Your task to perform on an android device: turn on notifications settings in the gmail app Image 0: 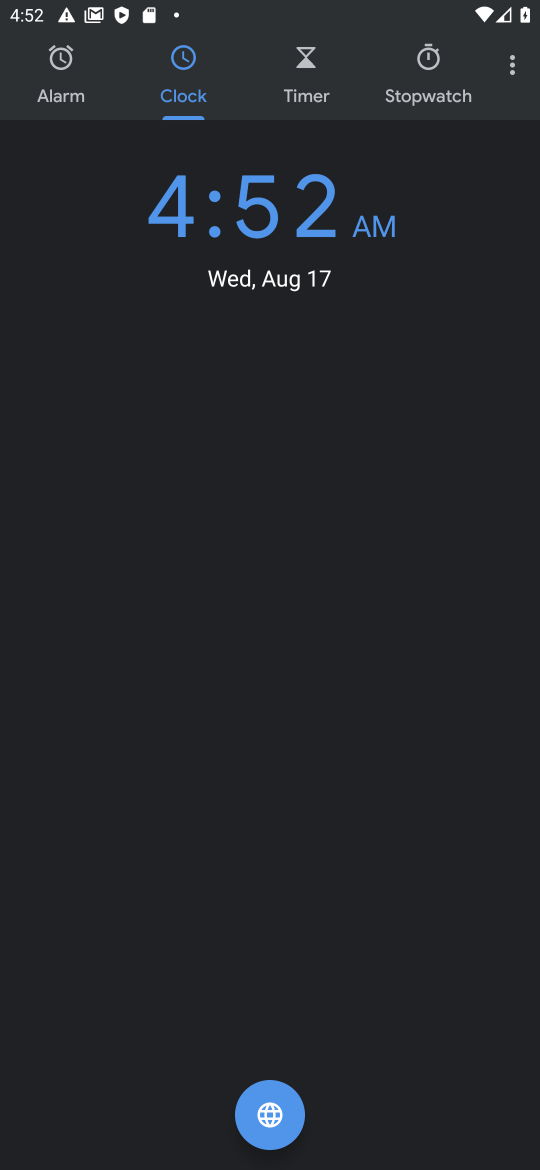
Step 0: press home button
Your task to perform on an android device: turn on notifications settings in the gmail app Image 1: 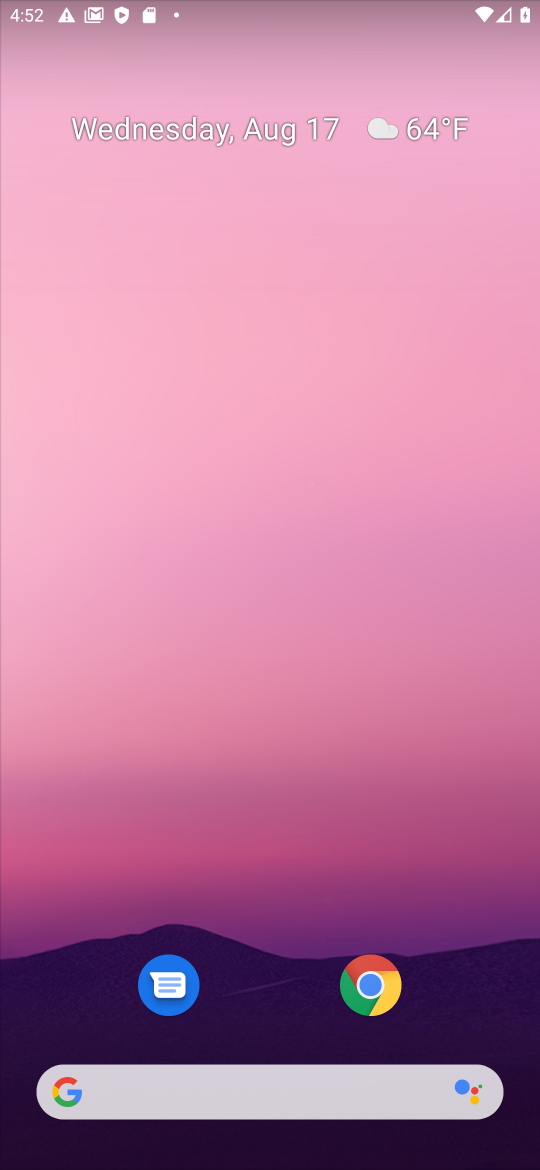
Step 1: drag from (229, 1096) to (281, 163)
Your task to perform on an android device: turn on notifications settings in the gmail app Image 2: 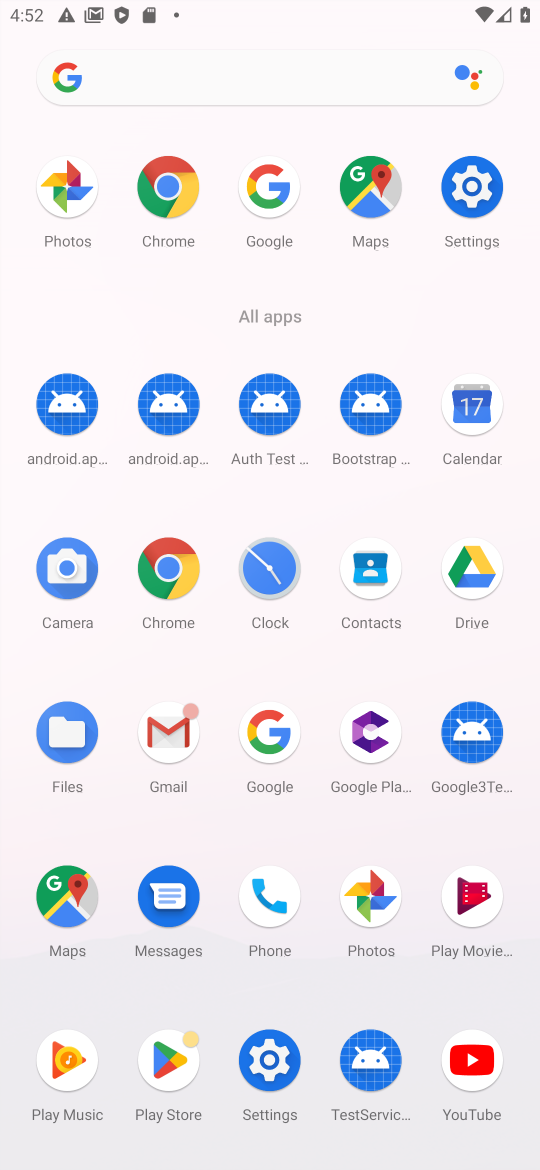
Step 2: click (163, 727)
Your task to perform on an android device: turn on notifications settings in the gmail app Image 3: 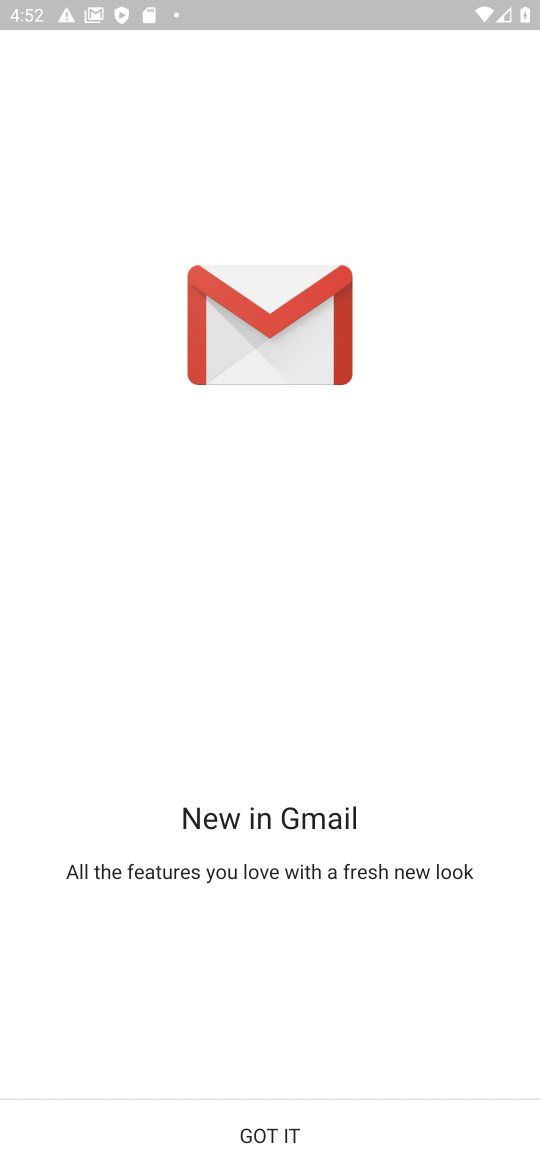
Step 3: click (266, 1126)
Your task to perform on an android device: turn on notifications settings in the gmail app Image 4: 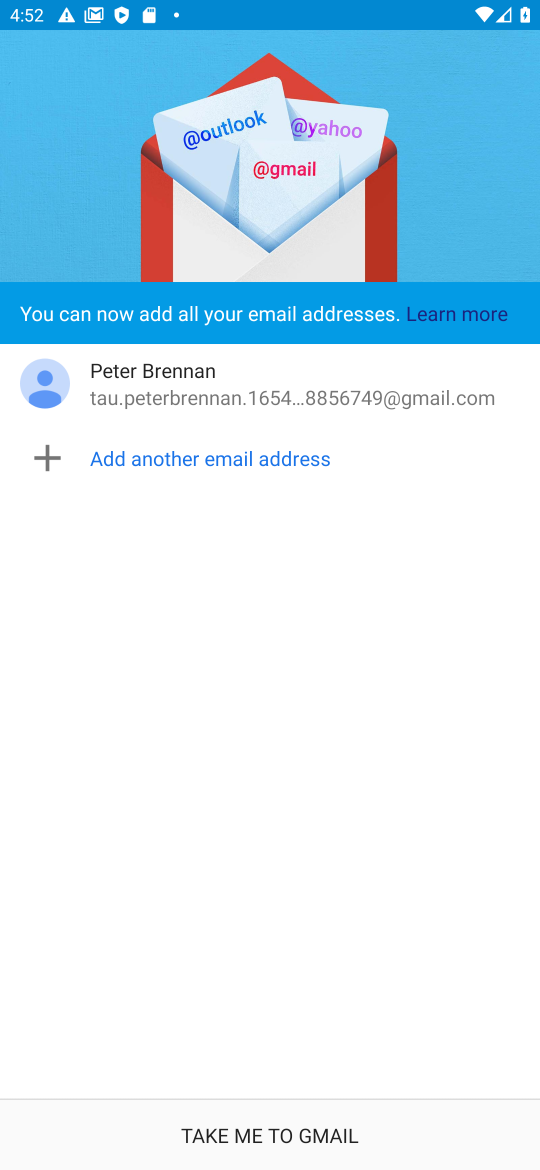
Step 4: click (266, 1126)
Your task to perform on an android device: turn on notifications settings in the gmail app Image 5: 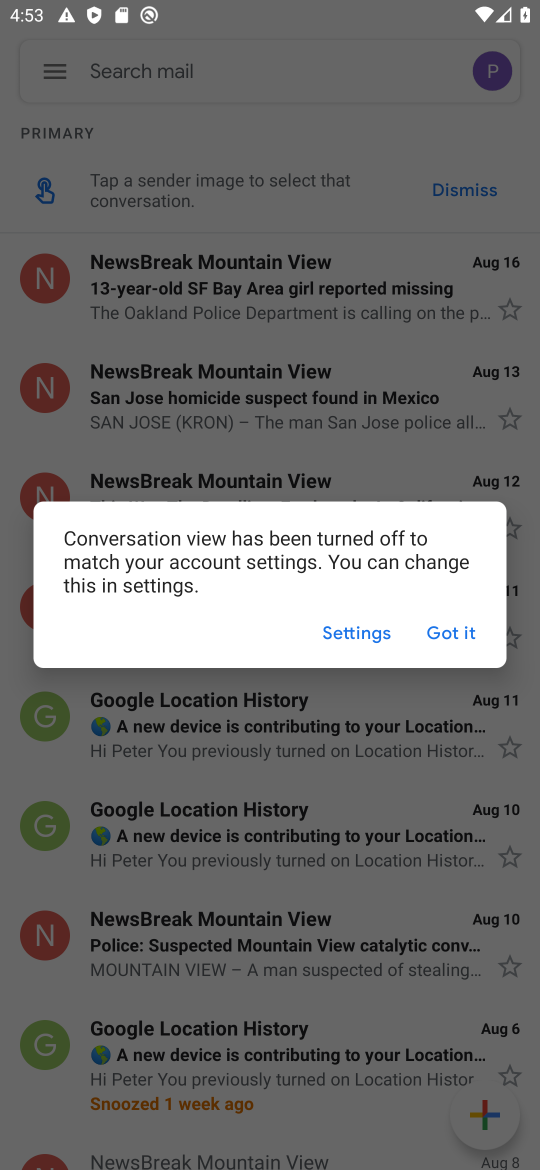
Step 5: click (453, 635)
Your task to perform on an android device: turn on notifications settings in the gmail app Image 6: 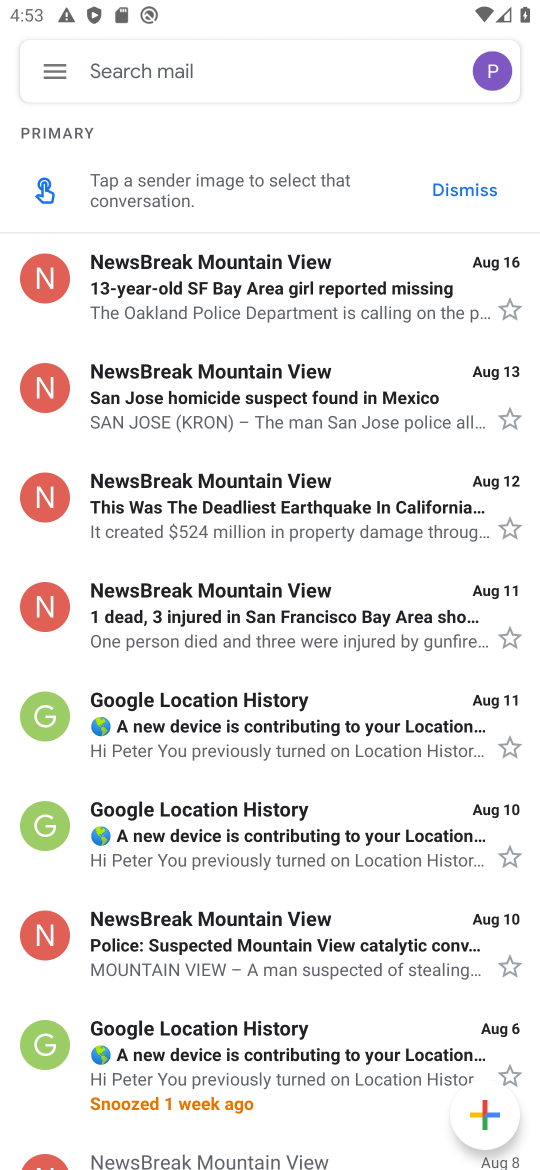
Step 6: click (53, 74)
Your task to perform on an android device: turn on notifications settings in the gmail app Image 7: 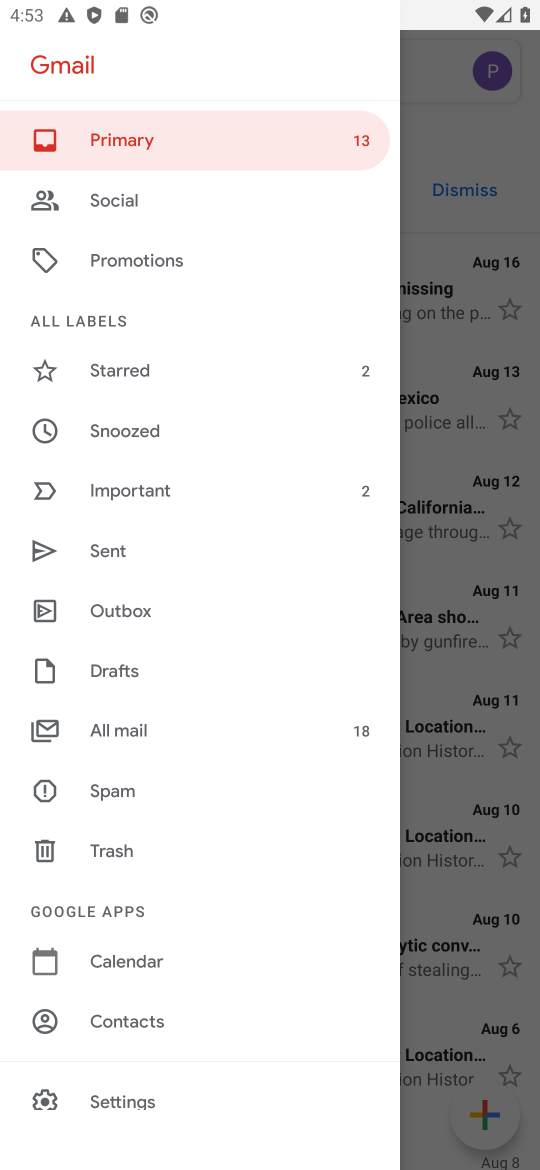
Step 7: click (123, 1091)
Your task to perform on an android device: turn on notifications settings in the gmail app Image 8: 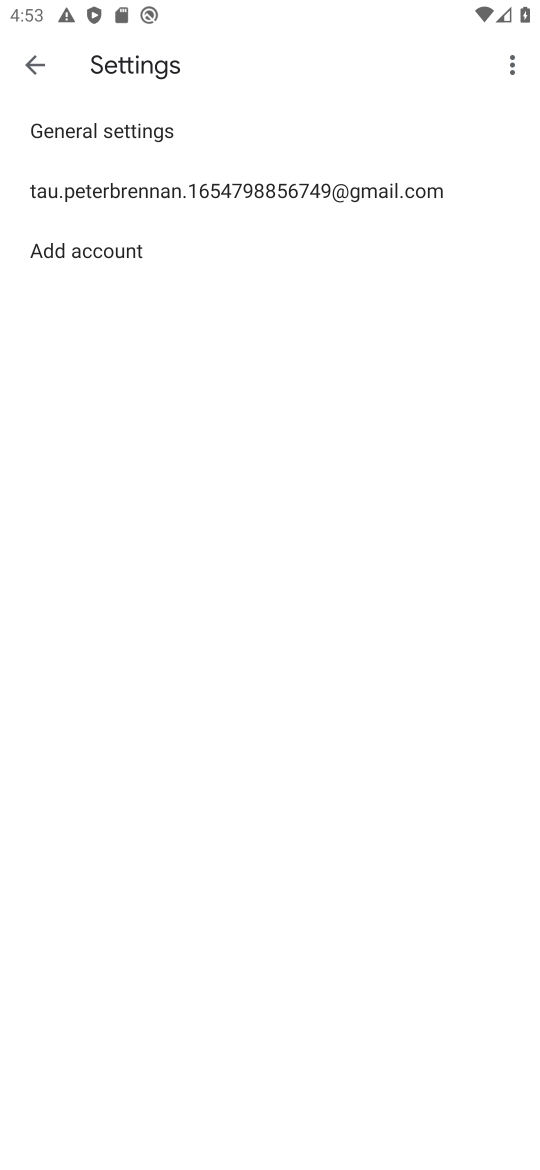
Step 8: click (157, 126)
Your task to perform on an android device: turn on notifications settings in the gmail app Image 9: 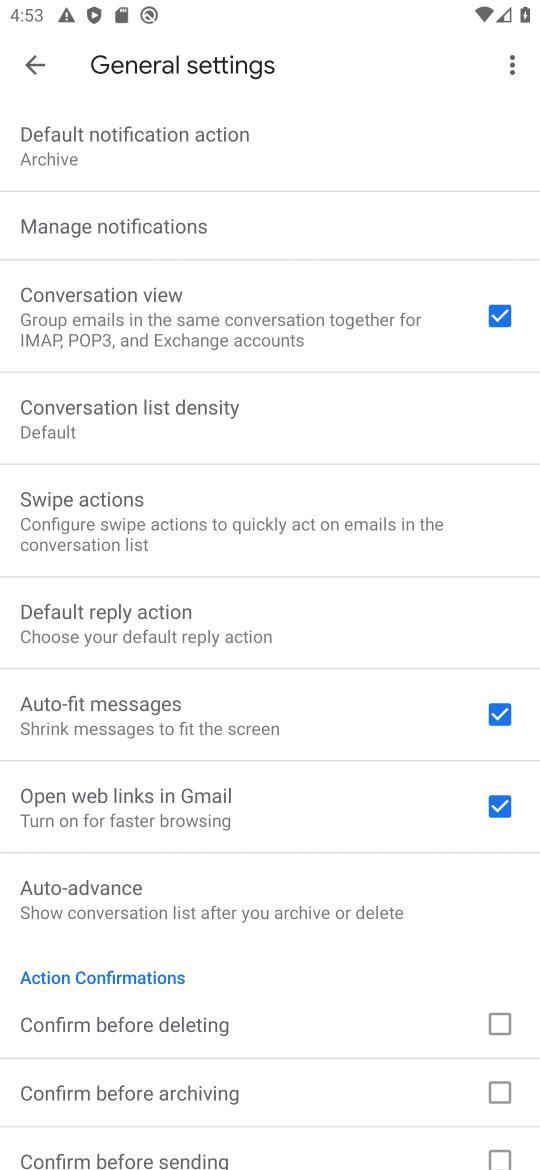
Step 9: click (193, 226)
Your task to perform on an android device: turn on notifications settings in the gmail app Image 10: 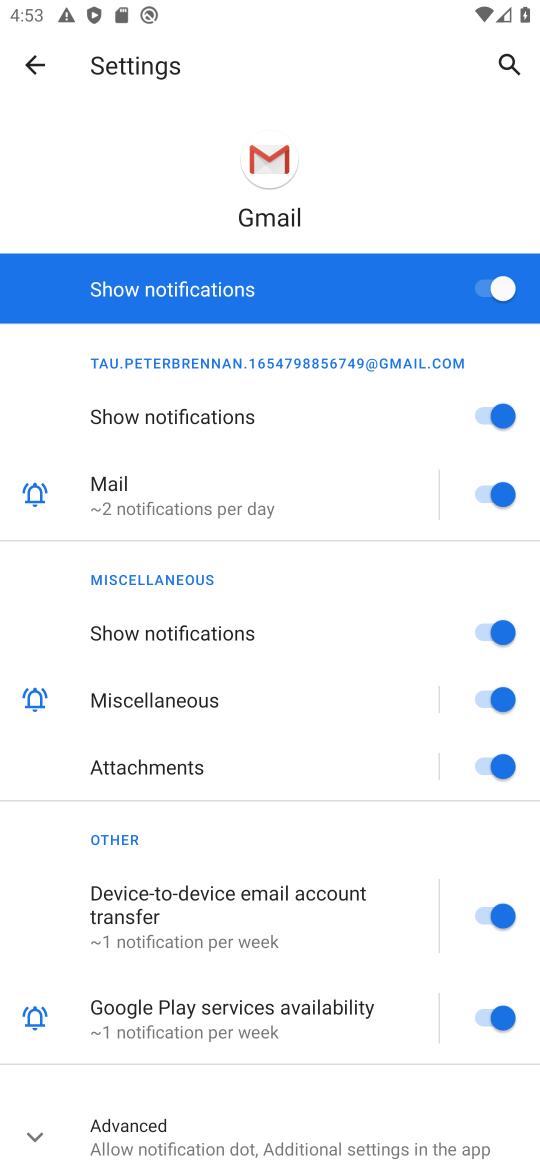
Step 10: task complete